Your task to perform on an android device: Search for Italian restaurants on Maps Image 0: 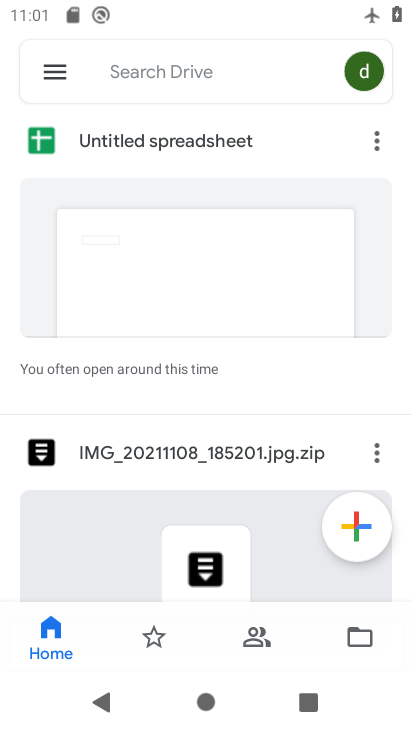
Step 0: press home button
Your task to perform on an android device: Search for Italian restaurants on Maps Image 1: 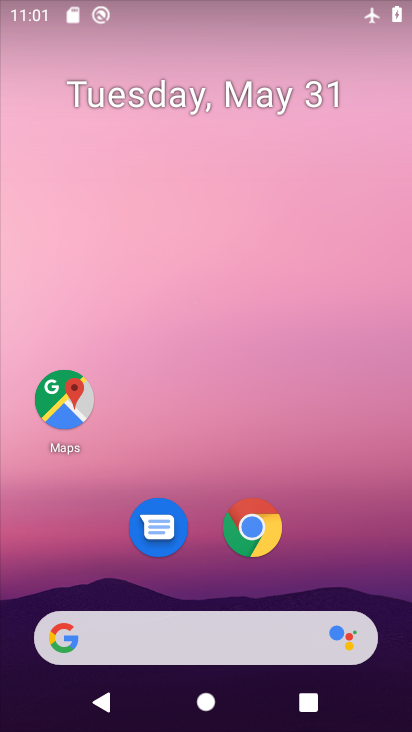
Step 1: click (62, 401)
Your task to perform on an android device: Search for Italian restaurants on Maps Image 2: 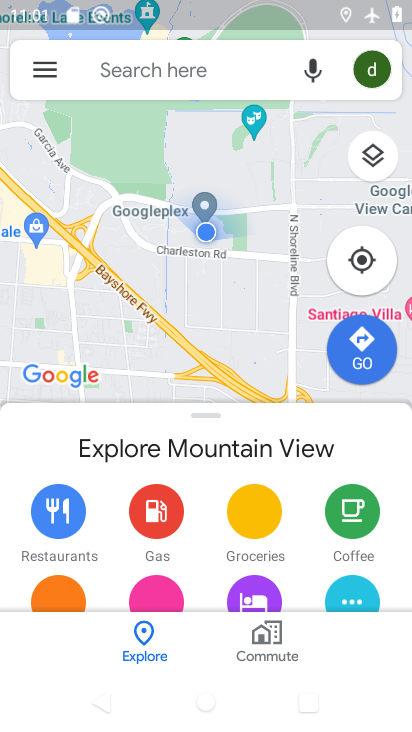
Step 2: click (102, 76)
Your task to perform on an android device: Search for Italian restaurants on Maps Image 3: 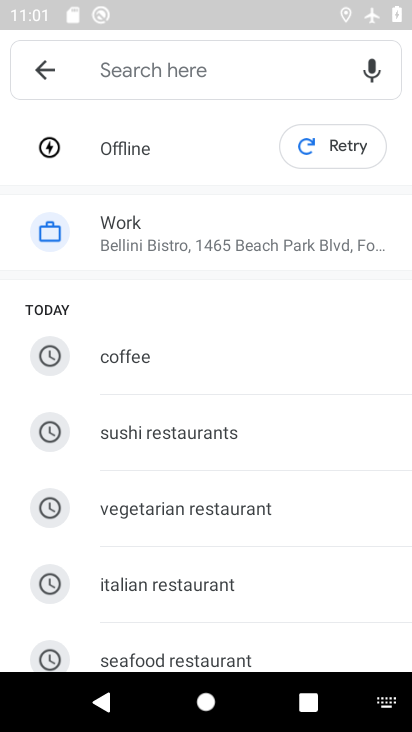
Step 3: type "italian restaurants"
Your task to perform on an android device: Search for Italian restaurants on Maps Image 4: 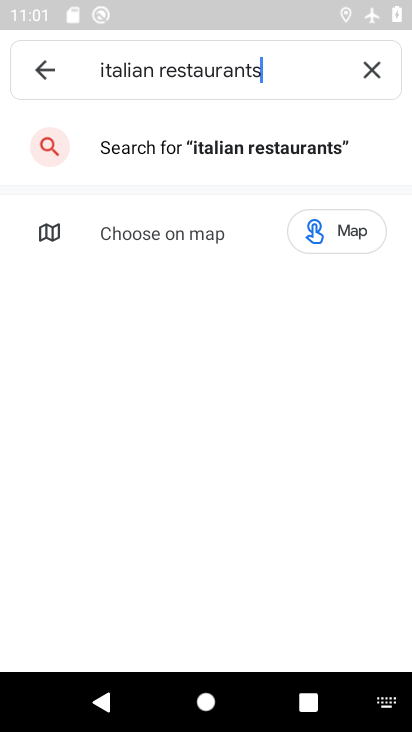
Step 4: click (262, 148)
Your task to perform on an android device: Search for Italian restaurants on Maps Image 5: 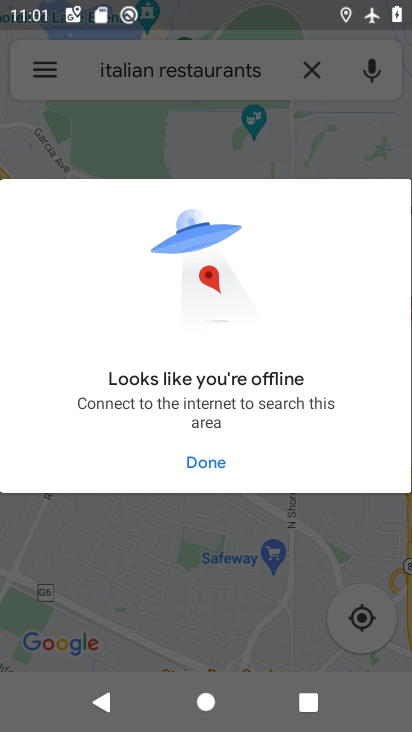
Step 5: task complete